Your task to perform on an android device: Open Reddit.com Image 0: 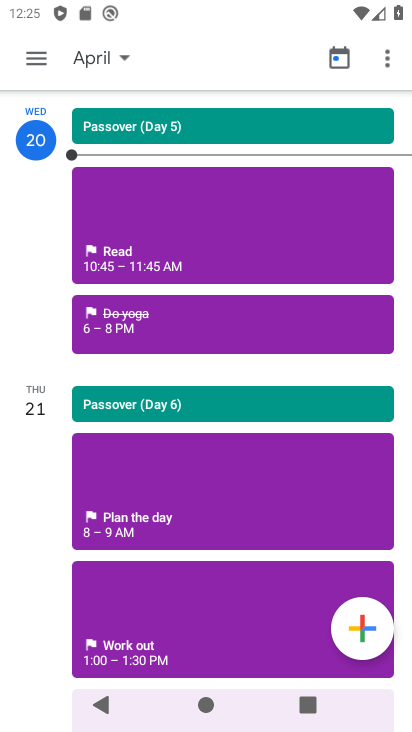
Step 0: drag from (219, 408) to (234, 164)
Your task to perform on an android device: Open Reddit.com Image 1: 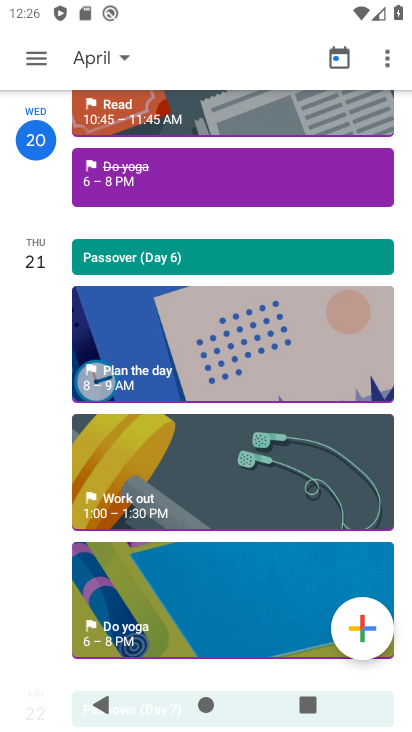
Step 1: press back button
Your task to perform on an android device: Open Reddit.com Image 2: 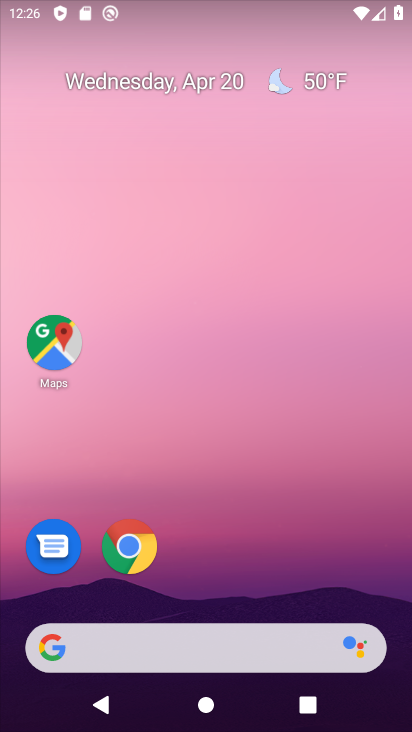
Step 2: click (145, 545)
Your task to perform on an android device: Open Reddit.com Image 3: 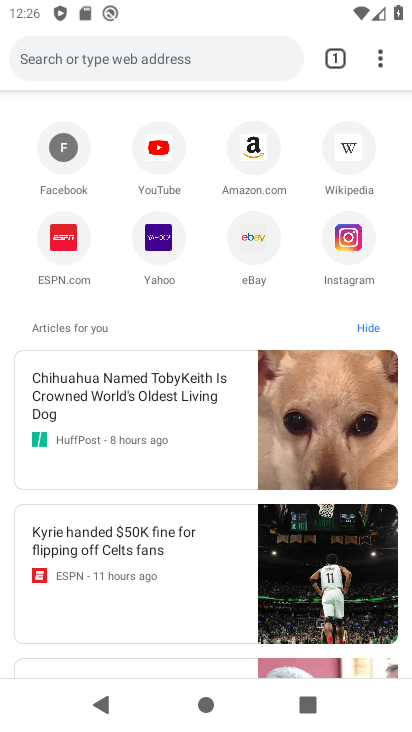
Step 3: click (116, 54)
Your task to perform on an android device: Open Reddit.com Image 4: 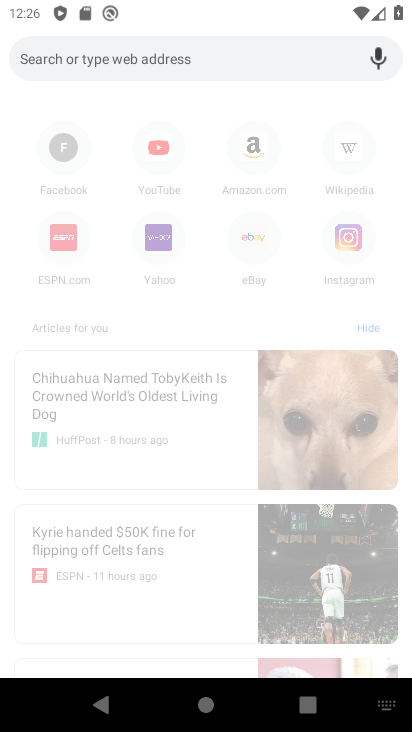
Step 4: type "reddit.com"
Your task to perform on an android device: Open Reddit.com Image 5: 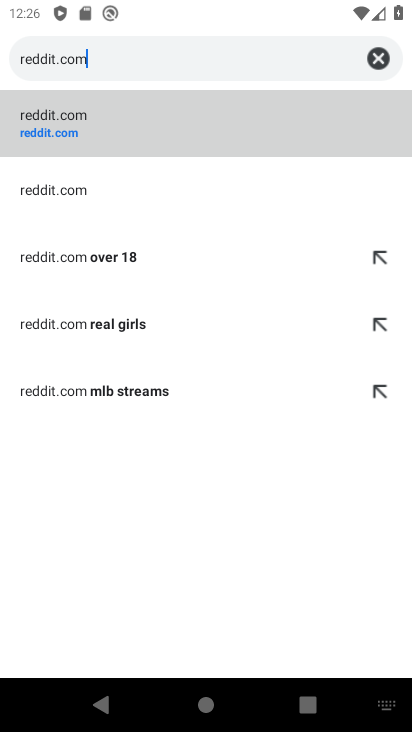
Step 5: click (111, 116)
Your task to perform on an android device: Open Reddit.com Image 6: 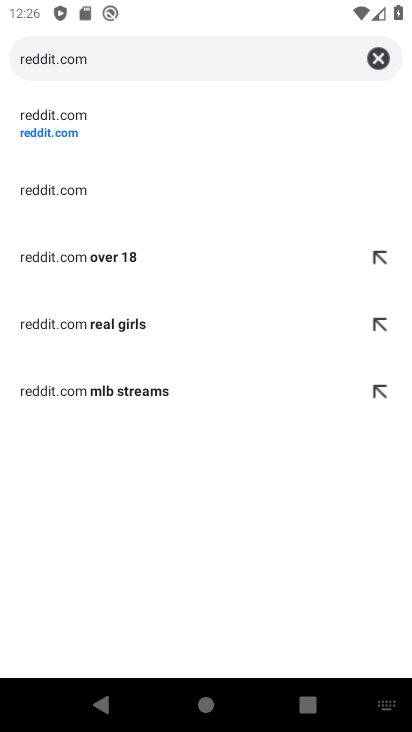
Step 6: click (105, 110)
Your task to perform on an android device: Open Reddit.com Image 7: 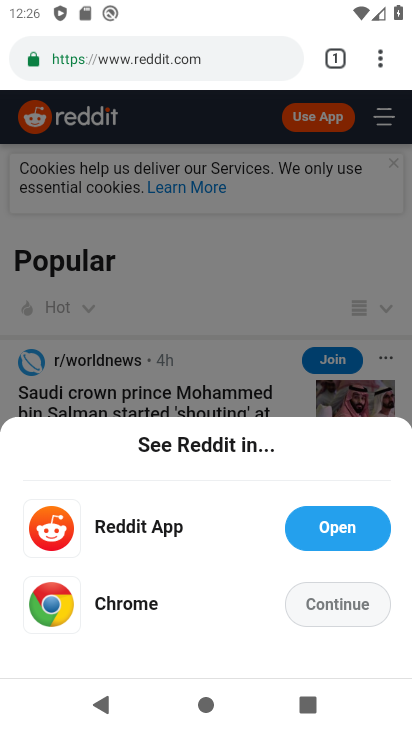
Step 7: task complete